Your task to perform on an android device: Open the phone app and click the voicemail tab. Image 0: 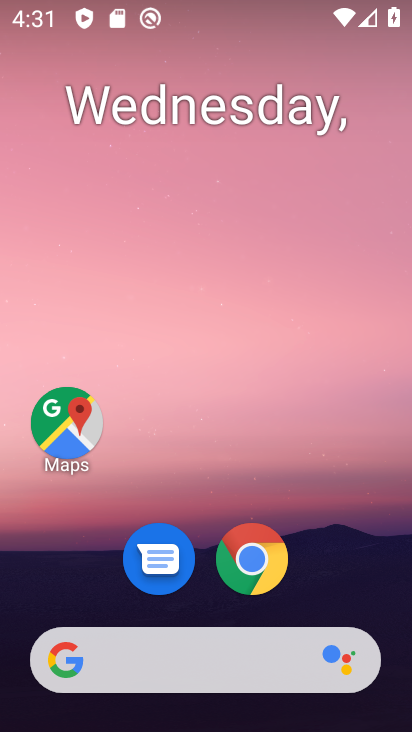
Step 0: drag from (384, 586) to (313, 128)
Your task to perform on an android device: Open the phone app and click the voicemail tab. Image 1: 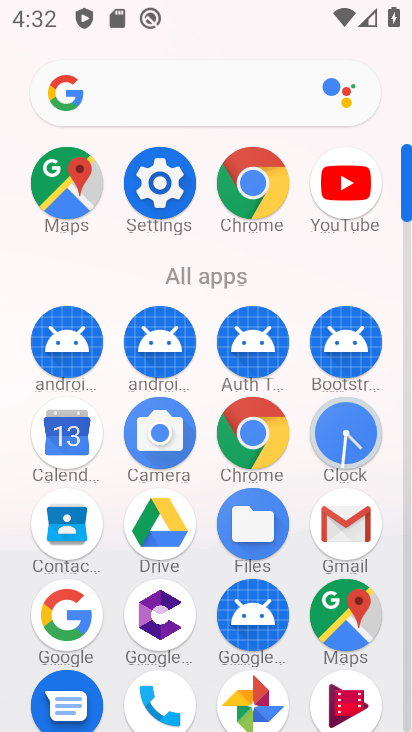
Step 1: click (167, 696)
Your task to perform on an android device: Open the phone app and click the voicemail tab. Image 2: 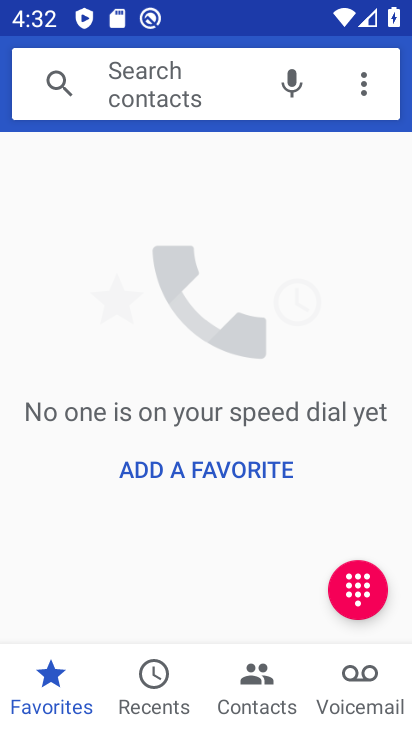
Step 2: click (381, 703)
Your task to perform on an android device: Open the phone app and click the voicemail tab. Image 3: 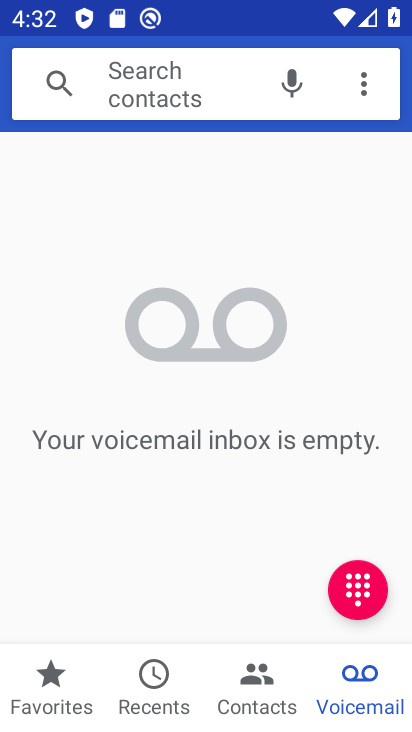
Step 3: task complete